Your task to perform on an android device: search for starred emails in the gmail app Image 0: 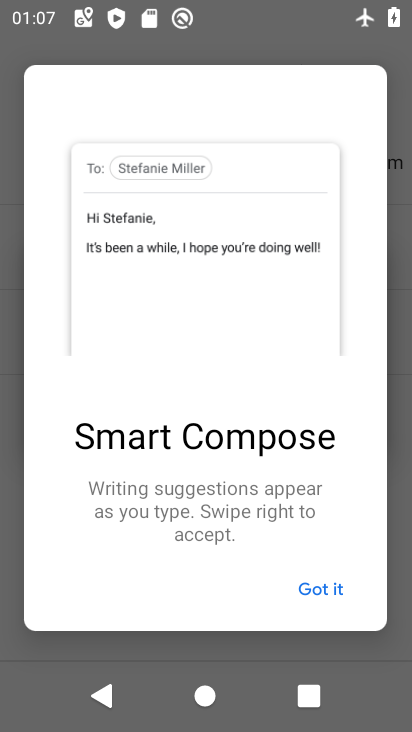
Step 0: press home button
Your task to perform on an android device: search for starred emails in the gmail app Image 1: 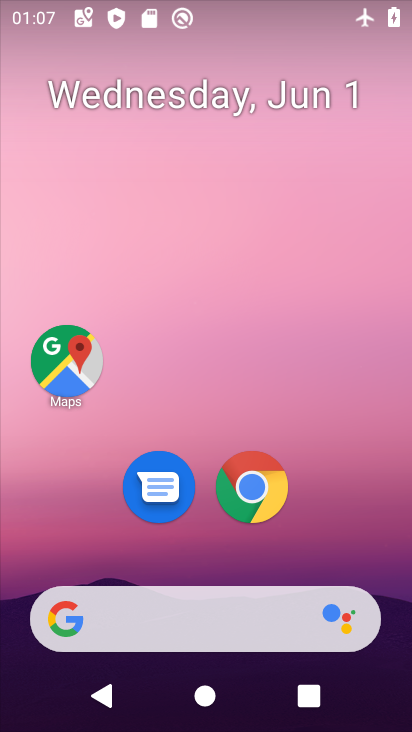
Step 1: drag from (306, 559) to (297, 135)
Your task to perform on an android device: search for starred emails in the gmail app Image 2: 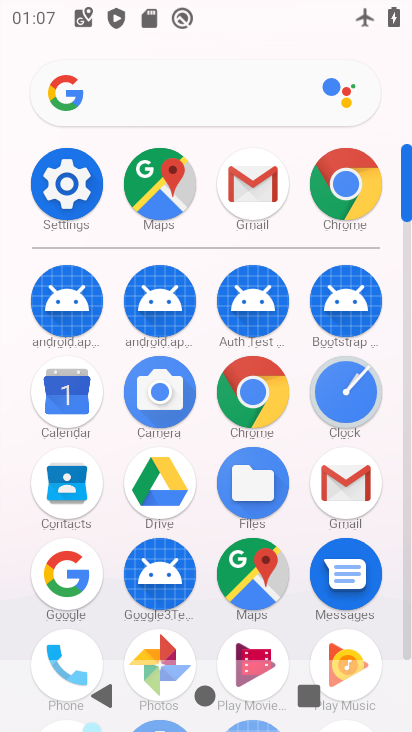
Step 2: click (252, 174)
Your task to perform on an android device: search for starred emails in the gmail app Image 3: 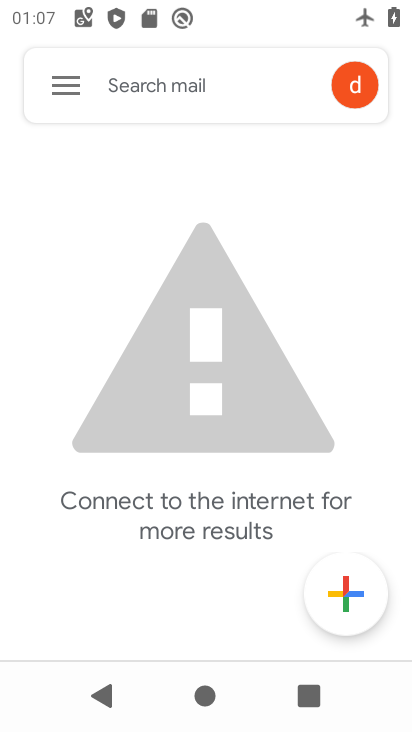
Step 3: click (46, 73)
Your task to perform on an android device: search for starred emails in the gmail app Image 4: 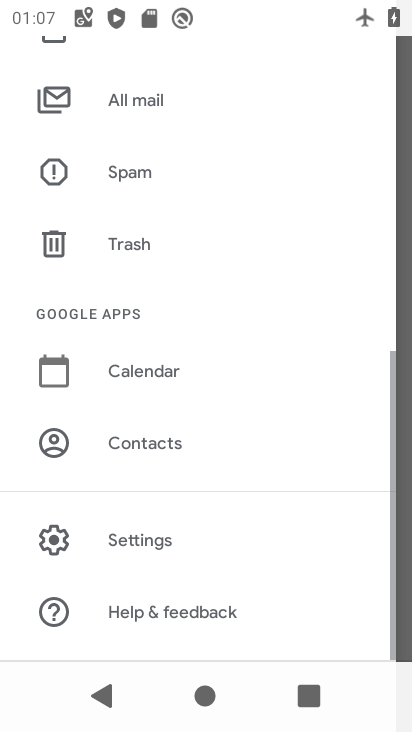
Step 4: drag from (123, 170) to (139, 581)
Your task to perform on an android device: search for starred emails in the gmail app Image 5: 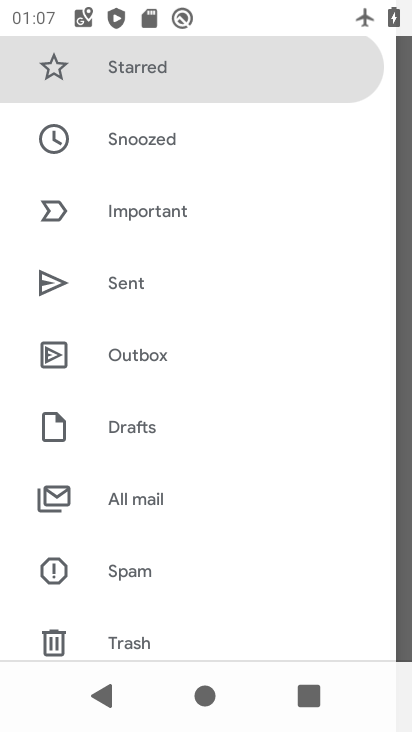
Step 5: click (172, 70)
Your task to perform on an android device: search for starred emails in the gmail app Image 6: 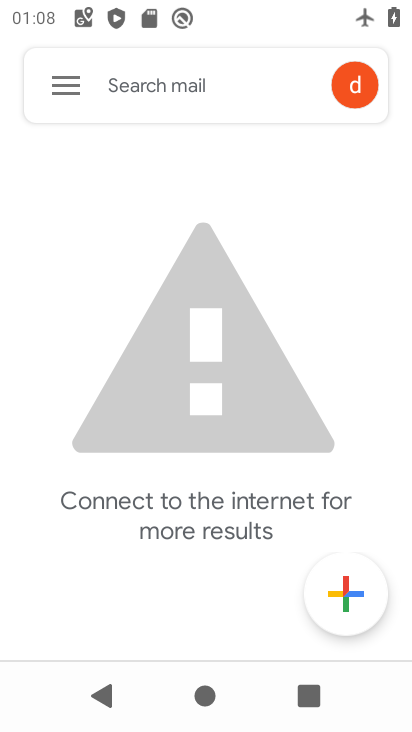
Step 6: task complete